Your task to perform on an android device: Go to ESPN.com Image 0: 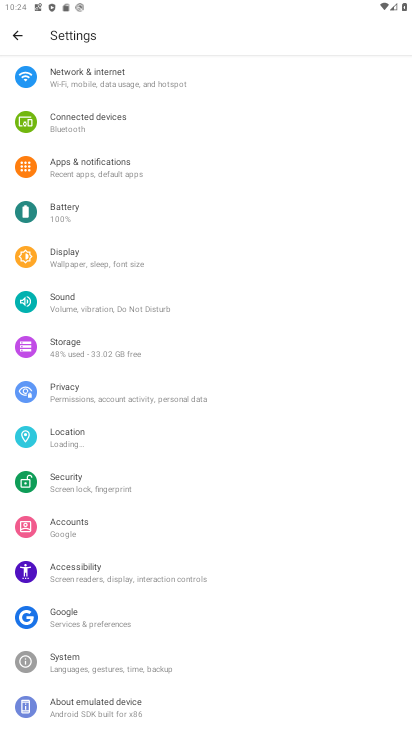
Step 0: press home button
Your task to perform on an android device: Go to ESPN.com Image 1: 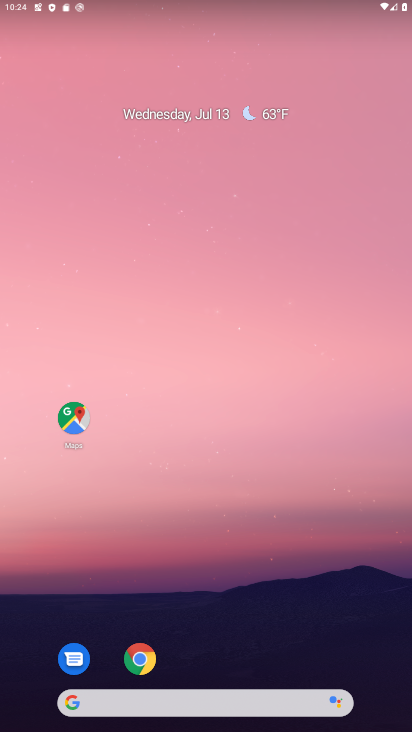
Step 1: drag from (342, 656) to (279, 181)
Your task to perform on an android device: Go to ESPN.com Image 2: 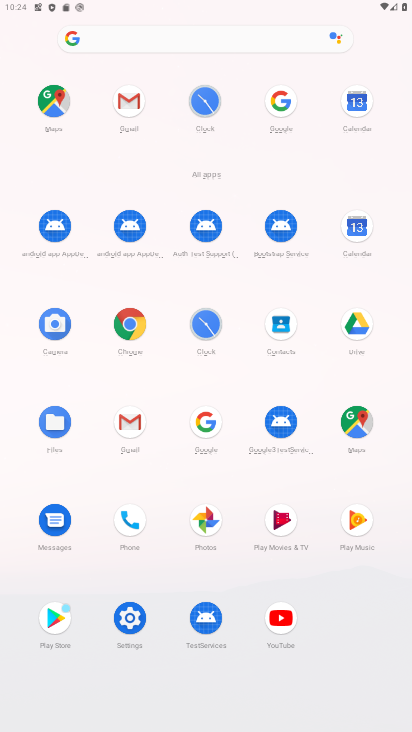
Step 2: click (117, 316)
Your task to perform on an android device: Go to ESPN.com Image 3: 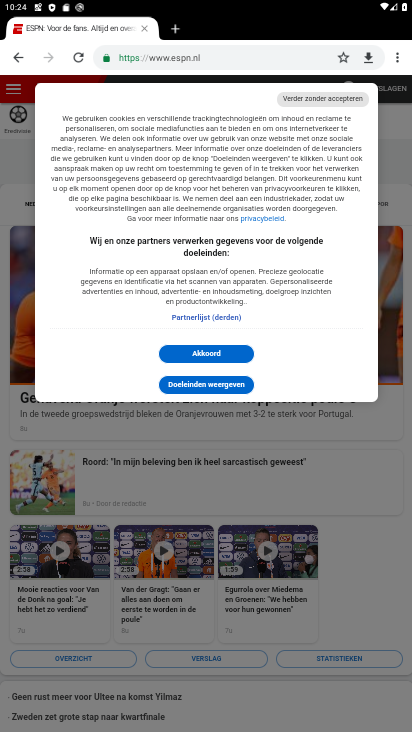
Step 3: task complete